Your task to perform on an android device: install app "YouTube Kids" Image 0: 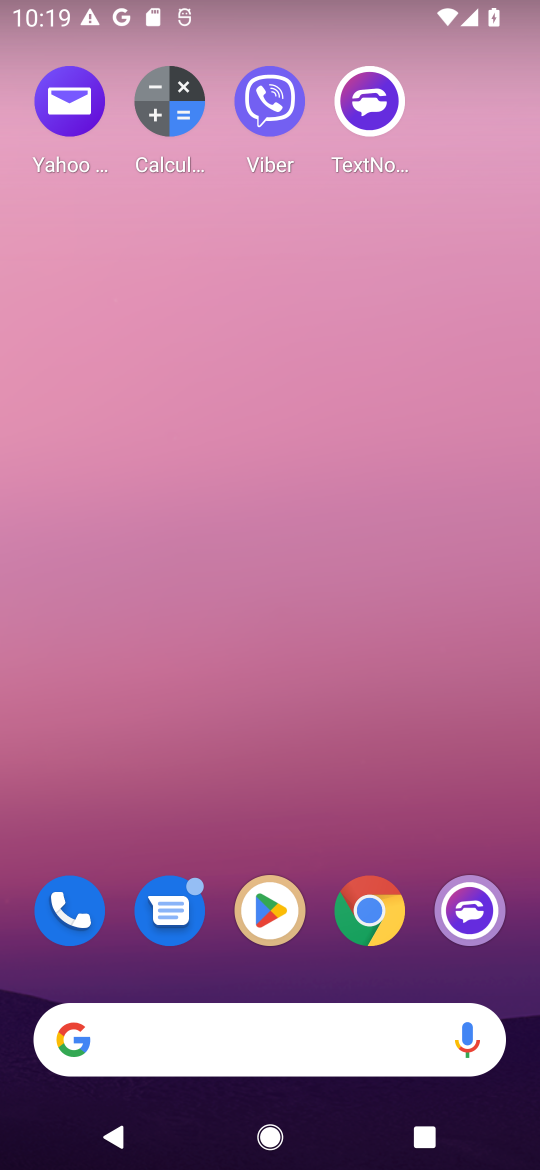
Step 0: click (277, 898)
Your task to perform on an android device: install app "YouTube Kids" Image 1: 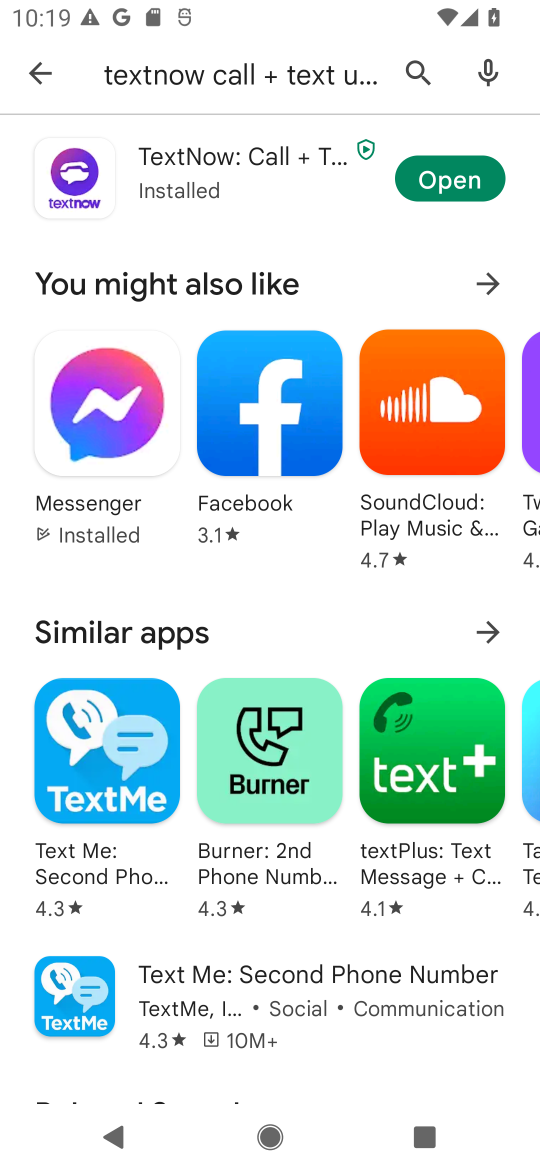
Step 1: click (422, 63)
Your task to perform on an android device: install app "YouTube Kids" Image 2: 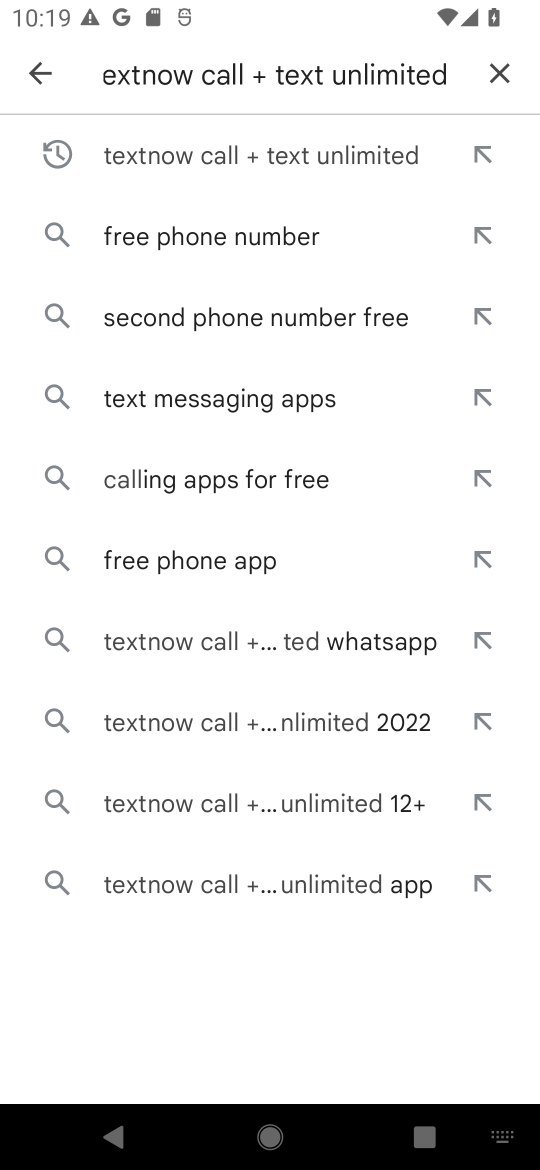
Step 2: click (492, 61)
Your task to perform on an android device: install app "YouTube Kids" Image 3: 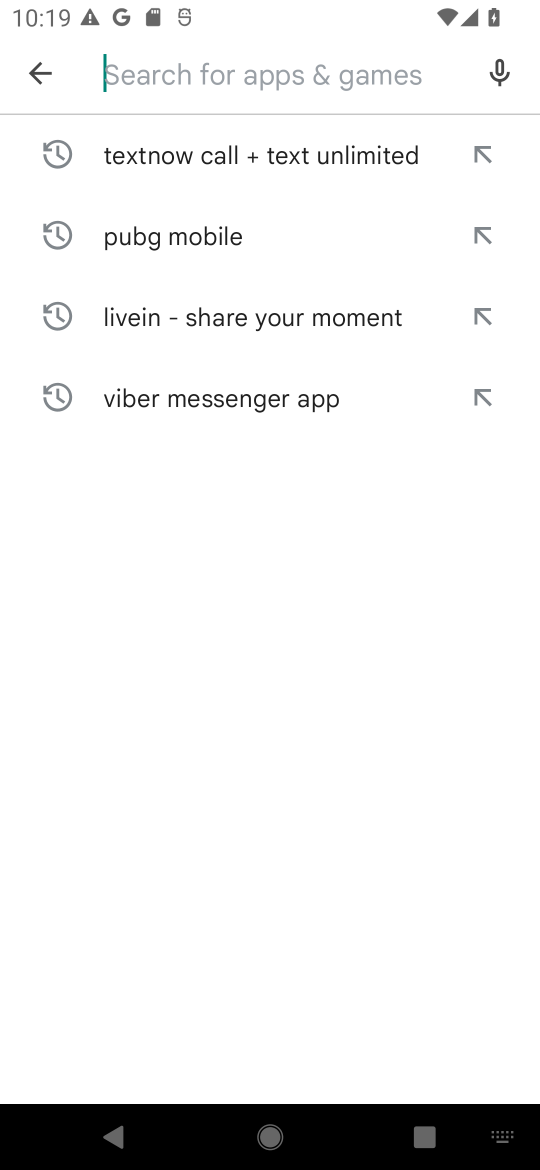
Step 3: type "YouTube Kids"
Your task to perform on an android device: install app "YouTube Kids" Image 4: 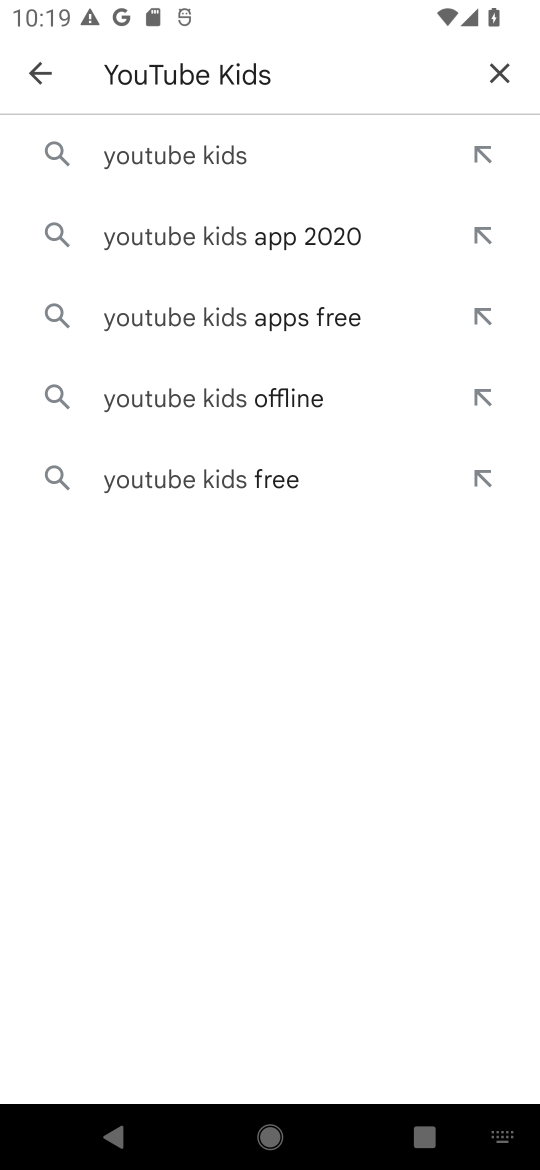
Step 4: click (226, 141)
Your task to perform on an android device: install app "YouTube Kids" Image 5: 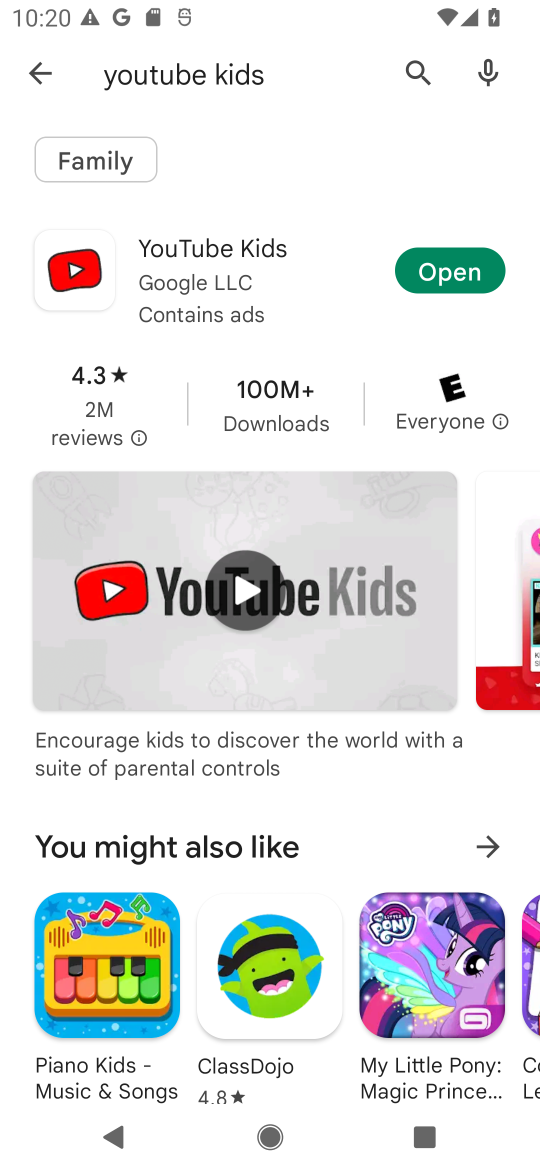
Step 5: click (338, 270)
Your task to perform on an android device: install app "YouTube Kids" Image 6: 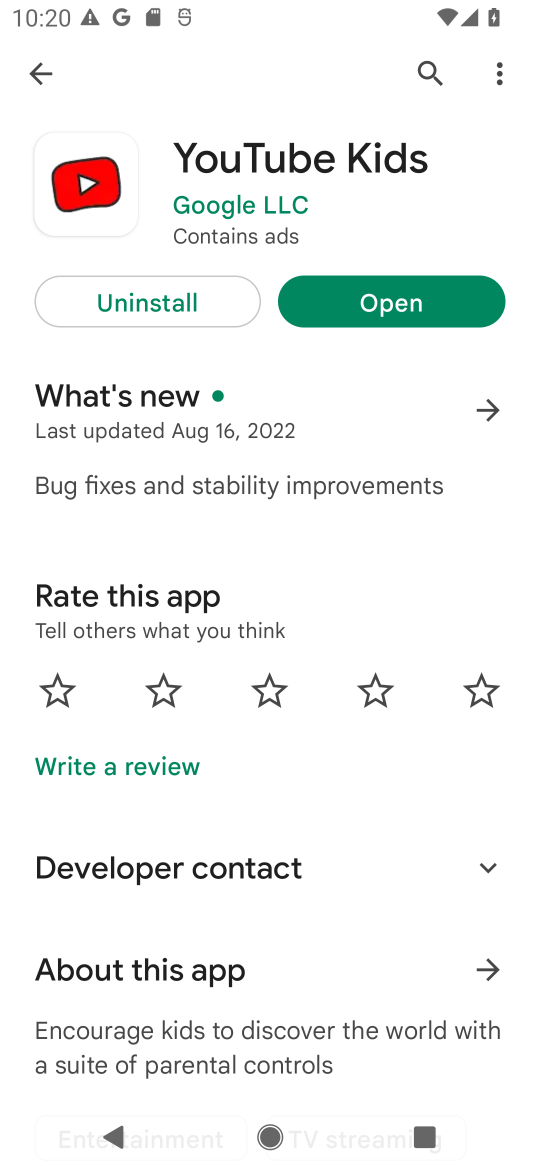
Step 6: task complete